Your task to perform on an android device: Show me the alarms in the clock app Image 0: 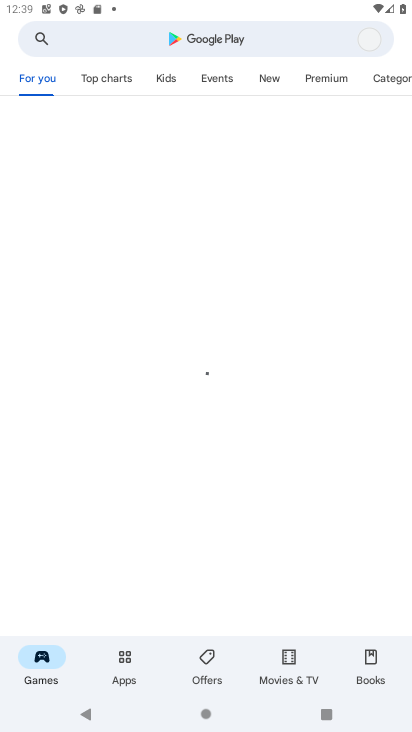
Step 0: press home button
Your task to perform on an android device: Show me the alarms in the clock app Image 1: 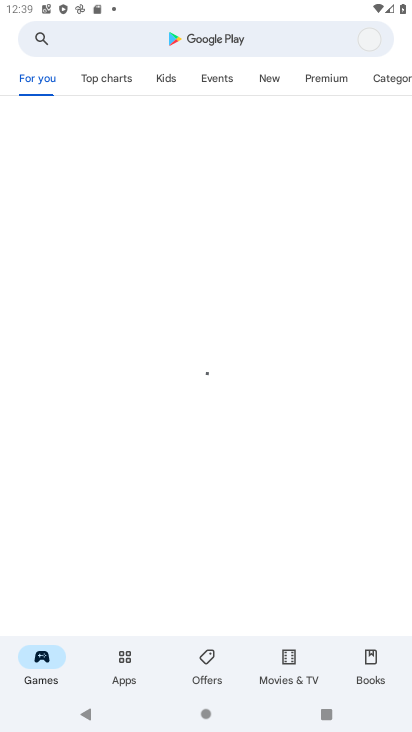
Step 1: drag from (382, 679) to (170, 69)
Your task to perform on an android device: Show me the alarms in the clock app Image 2: 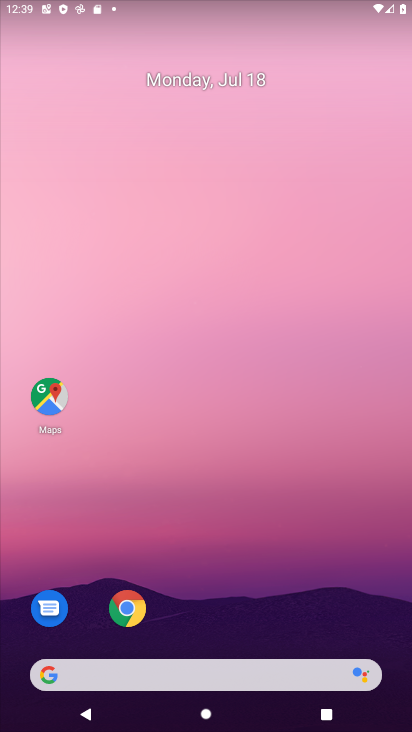
Step 2: drag from (390, 645) to (222, 64)
Your task to perform on an android device: Show me the alarms in the clock app Image 3: 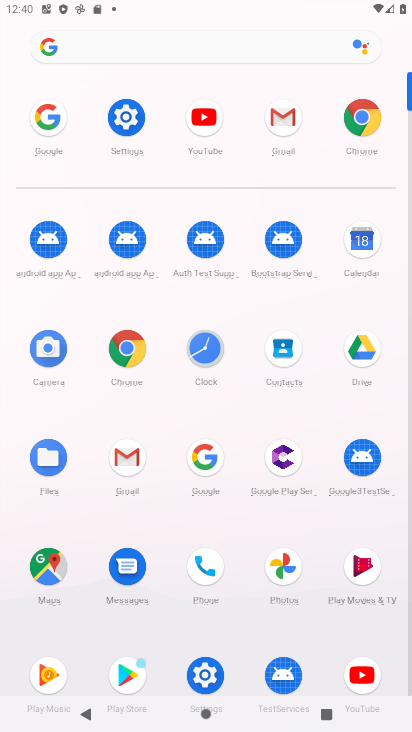
Step 3: click (199, 355)
Your task to perform on an android device: Show me the alarms in the clock app Image 4: 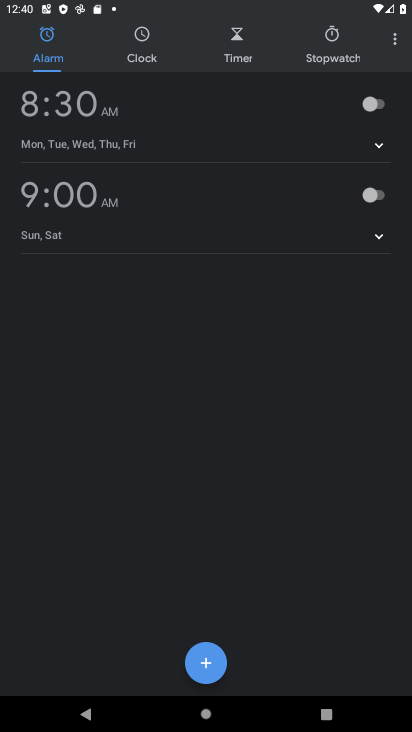
Step 4: task complete